Your task to perform on an android device: Open Maps and search for coffee Image 0: 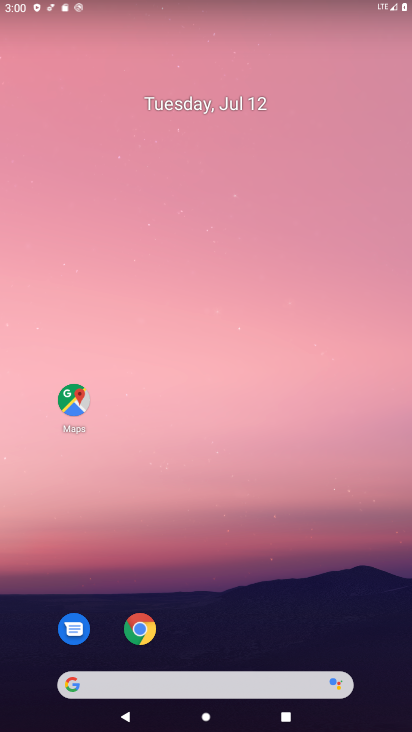
Step 0: drag from (283, 564) to (248, 241)
Your task to perform on an android device: Open Maps and search for coffee Image 1: 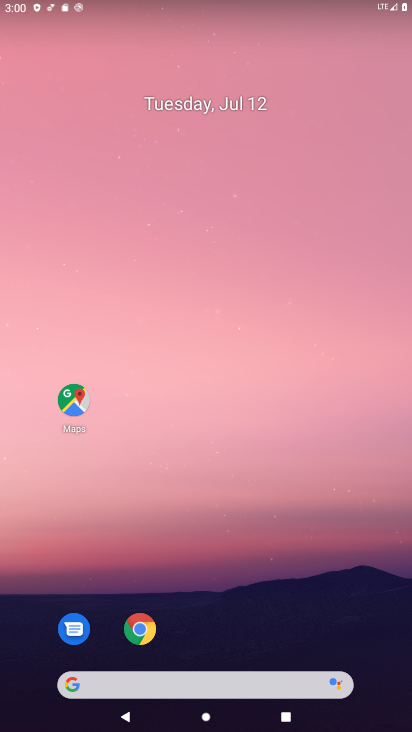
Step 1: drag from (296, 298) to (314, 238)
Your task to perform on an android device: Open Maps and search for coffee Image 2: 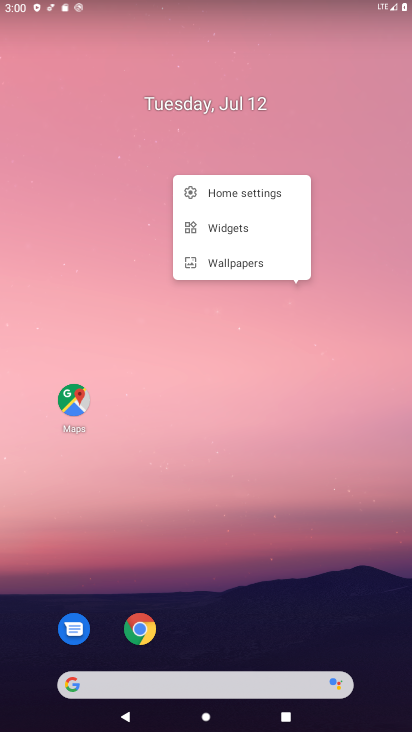
Step 2: drag from (223, 564) to (237, 262)
Your task to perform on an android device: Open Maps and search for coffee Image 3: 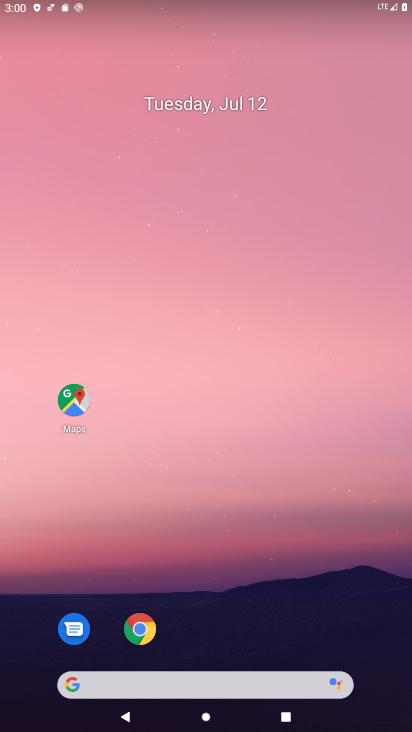
Step 3: drag from (226, 644) to (217, 151)
Your task to perform on an android device: Open Maps and search for coffee Image 4: 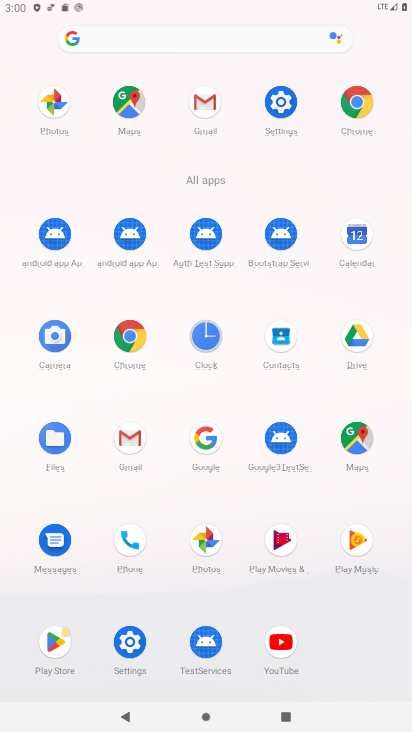
Step 4: click (362, 445)
Your task to perform on an android device: Open Maps and search for coffee Image 5: 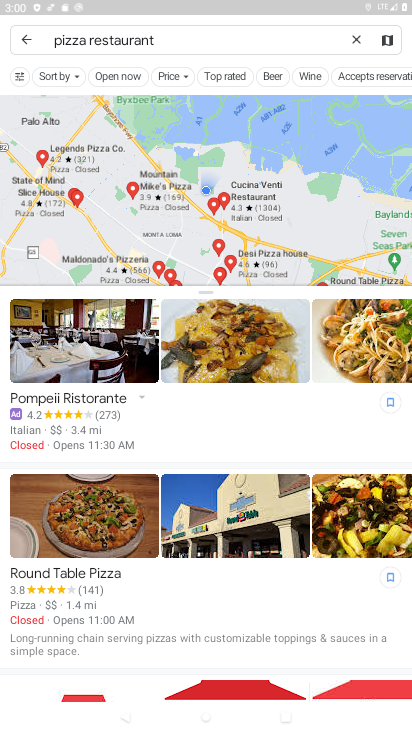
Step 5: click (175, 40)
Your task to perform on an android device: Open Maps and search for coffee Image 6: 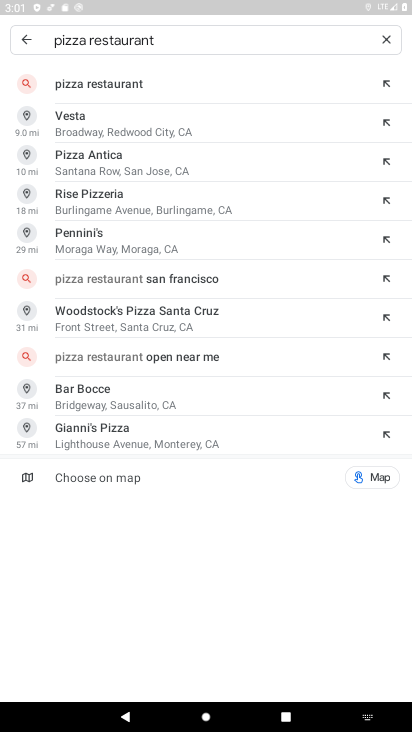
Step 6: click (390, 25)
Your task to perform on an android device: Open Maps and search for coffee Image 7: 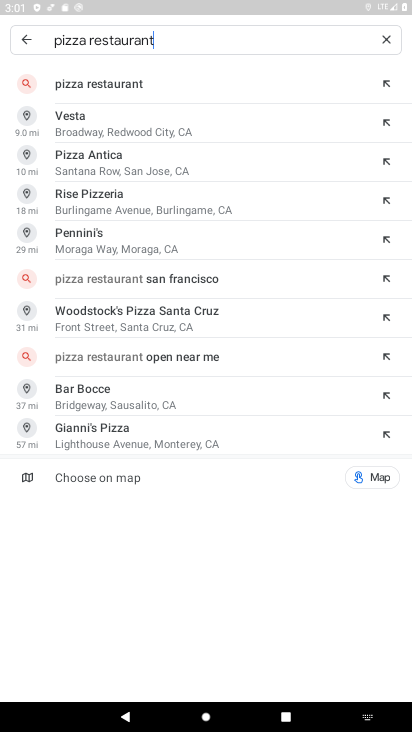
Step 7: click (31, 35)
Your task to perform on an android device: Open Maps and search for coffee Image 8: 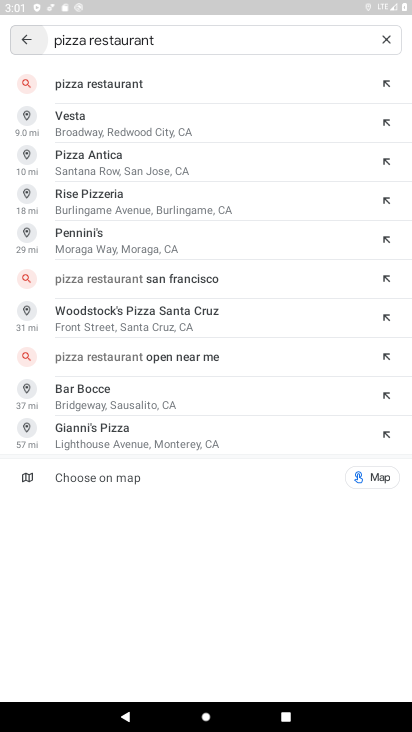
Step 8: click (32, 34)
Your task to perform on an android device: Open Maps and search for coffee Image 9: 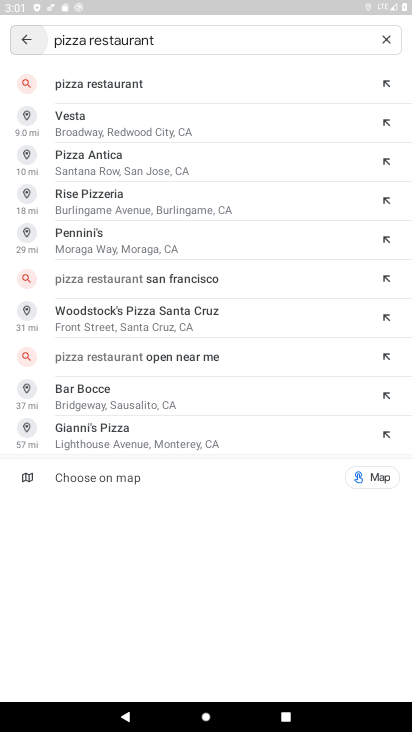
Step 9: click (32, 34)
Your task to perform on an android device: Open Maps and search for coffee Image 10: 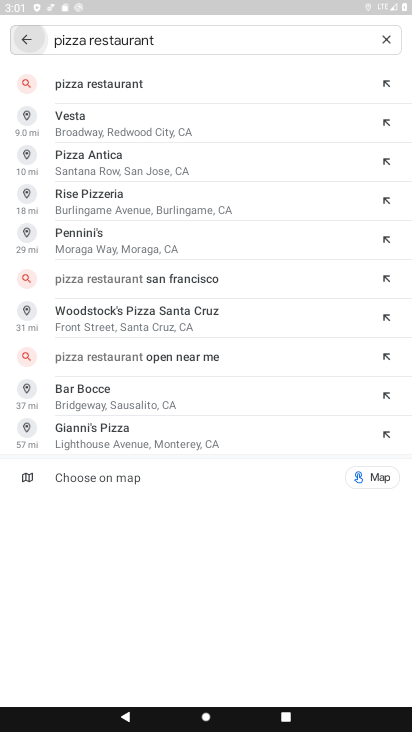
Step 10: click (32, 34)
Your task to perform on an android device: Open Maps and search for coffee Image 11: 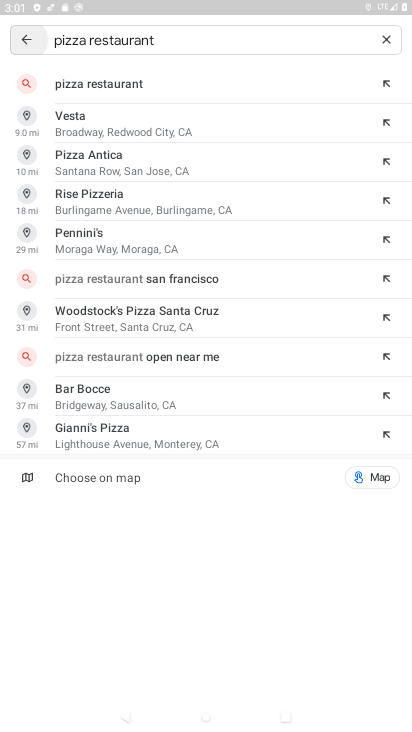
Step 11: click (391, 37)
Your task to perform on an android device: Open Maps and search for coffee Image 12: 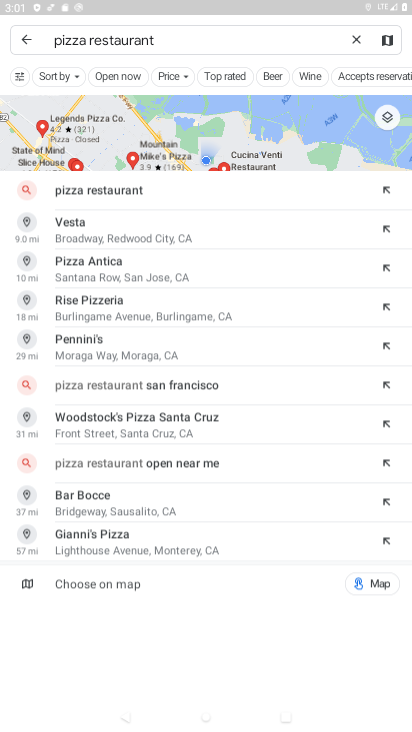
Step 12: click (399, 24)
Your task to perform on an android device: Open Maps and search for coffee Image 13: 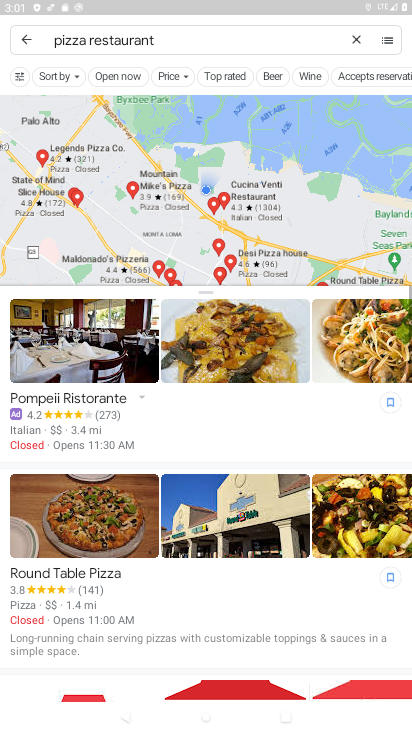
Step 13: click (363, 37)
Your task to perform on an android device: Open Maps and search for coffee Image 14: 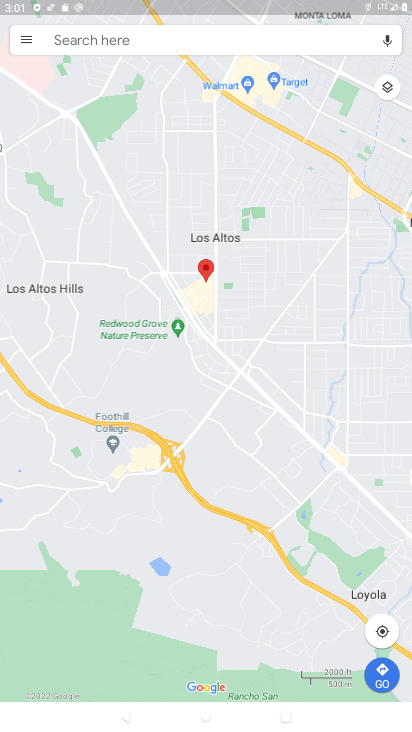
Step 14: click (138, 36)
Your task to perform on an android device: Open Maps and search for coffee Image 15: 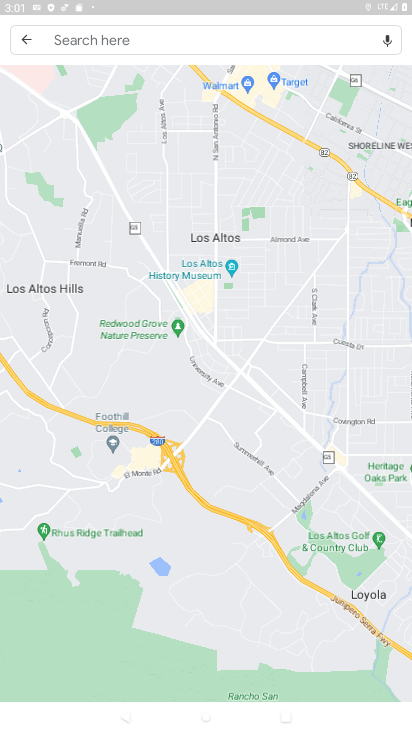
Step 15: click (74, 43)
Your task to perform on an android device: Open Maps and search for coffee Image 16: 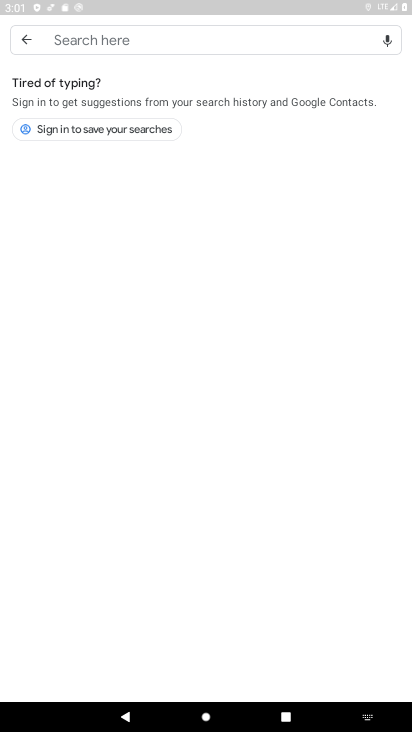
Step 16: click (74, 43)
Your task to perform on an android device: Open Maps and search for coffee Image 17: 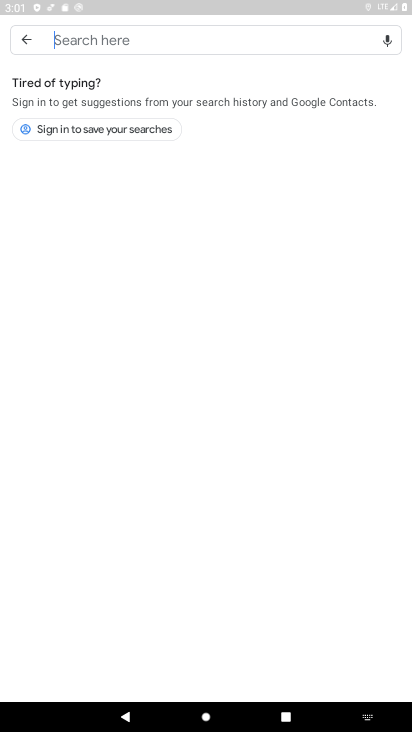
Step 17: click (77, 44)
Your task to perform on an android device: Open Maps and search for coffee Image 18: 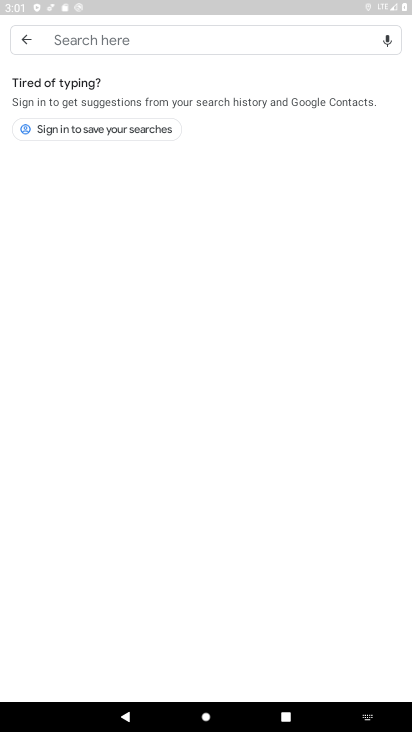
Step 18: type "coffee"
Your task to perform on an android device: Open Maps and search for coffee Image 19: 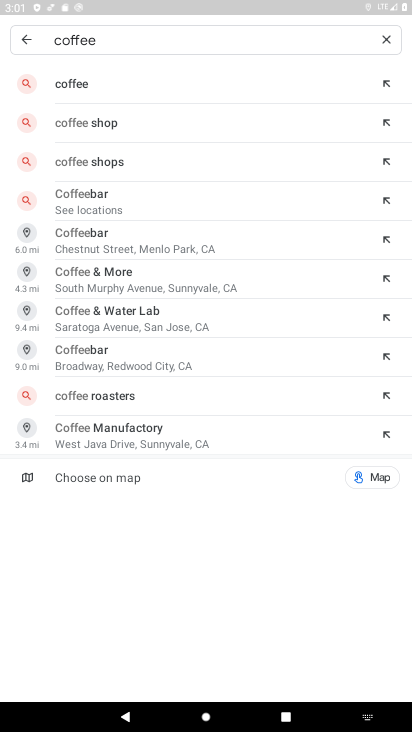
Step 19: click (57, 78)
Your task to perform on an android device: Open Maps and search for coffee Image 20: 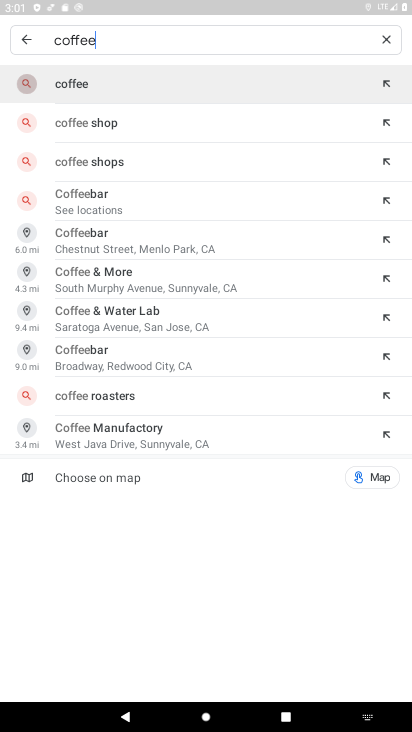
Step 20: click (63, 79)
Your task to perform on an android device: Open Maps and search for coffee Image 21: 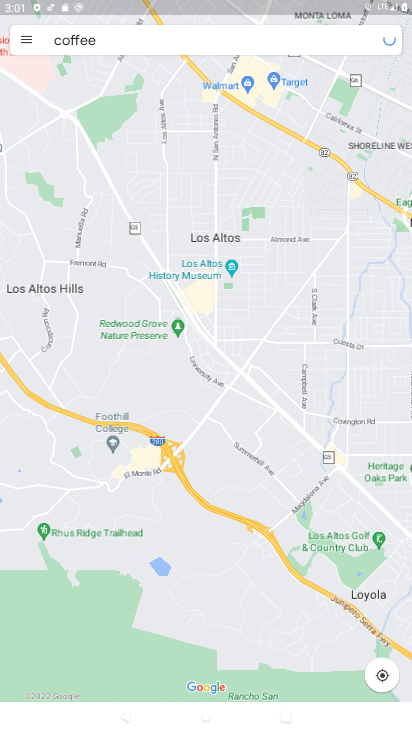
Step 21: click (64, 79)
Your task to perform on an android device: Open Maps and search for coffee Image 22: 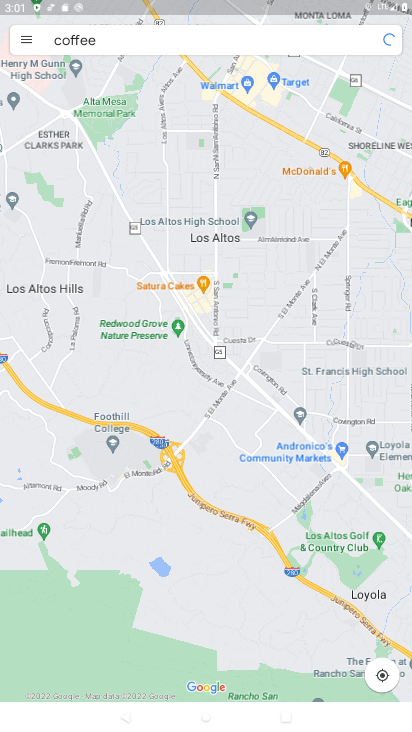
Step 22: task complete